Your task to perform on an android device: Open battery settings Image 0: 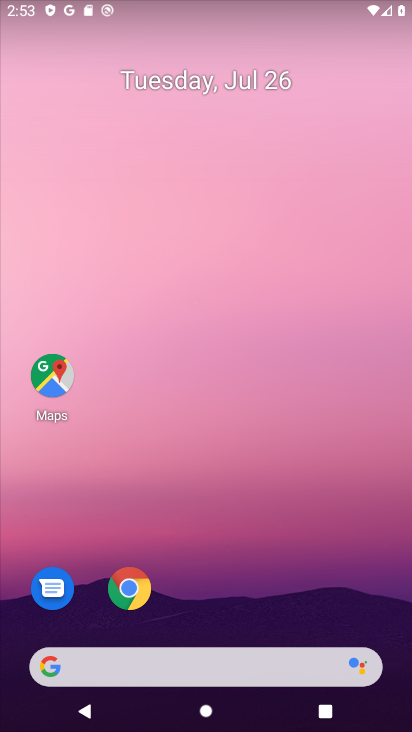
Step 0: drag from (228, 630) to (239, 4)
Your task to perform on an android device: Open battery settings Image 1: 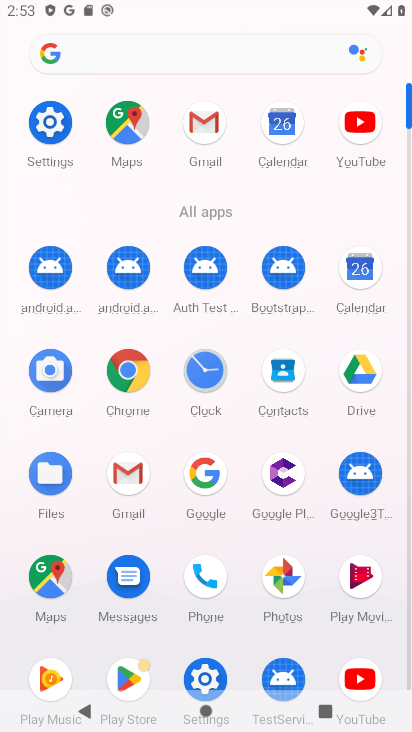
Step 1: click (45, 135)
Your task to perform on an android device: Open battery settings Image 2: 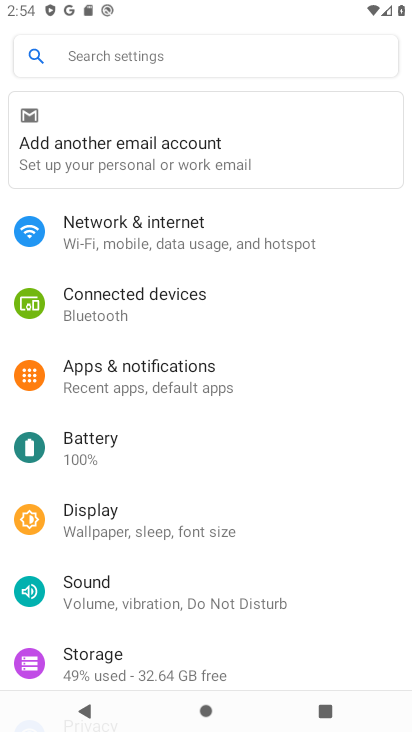
Step 2: click (111, 427)
Your task to perform on an android device: Open battery settings Image 3: 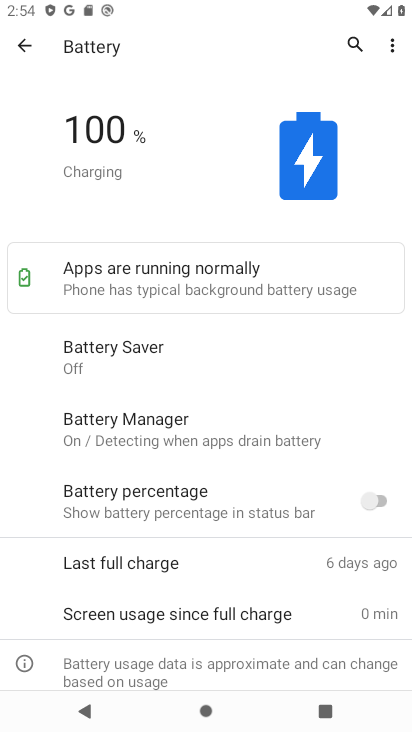
Step 3: task complete